Your task to perform on an android device: Go to Maps Image 0: 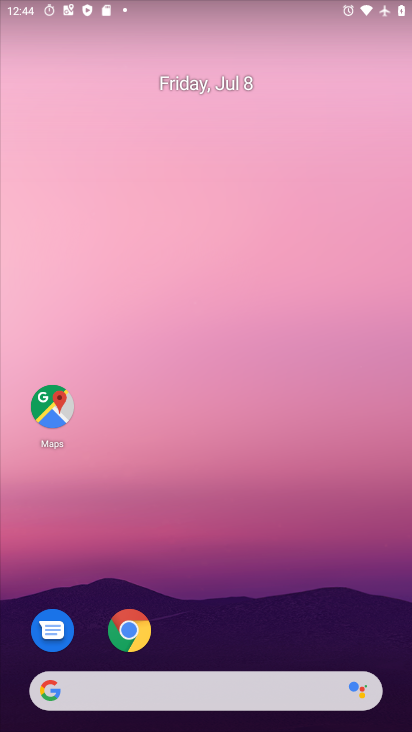
Step 0: click (57, 410)
Your task to perform on an android device: Go to Maps Image 1: 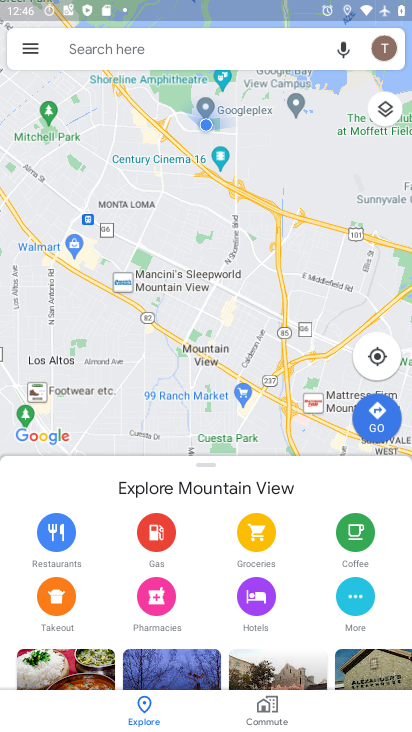
Step 1: task complete